Your task to perform on an android device: Open the phone app and click the voicemail tab. Image 0: 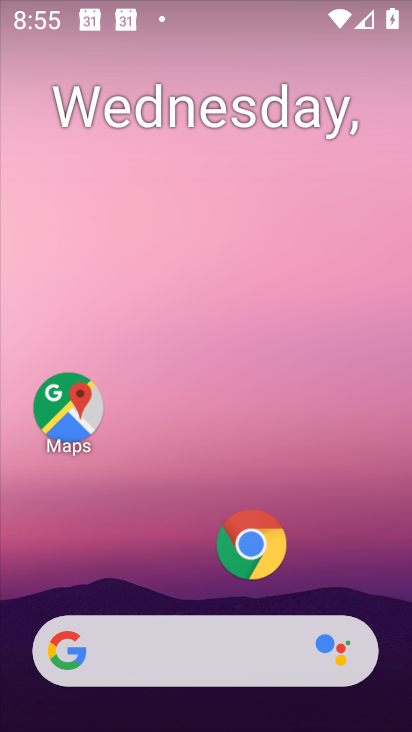
Step 0: drag from (241, 605) to (98, 46)
Your task to perform on an android device: Open the phone app and click the voicemail tab. Image 1: 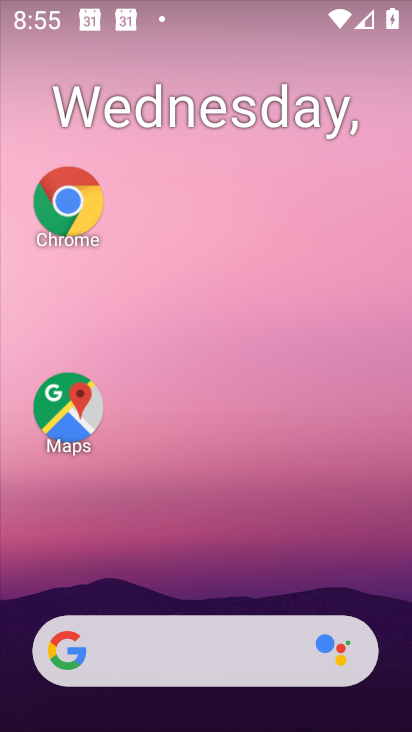
Step 1: drag from (211, 595) to (105, 17)
Your task to perform on an android device: Open the phone app and click the voicemail tab. Image 2: 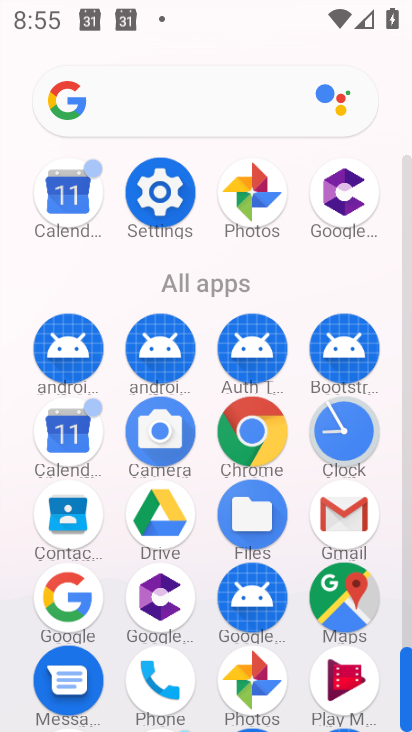
Step 2: click (143, 658)
Your task to perform on an android device: Open the phone app and click the voicemail tab. Image 3: 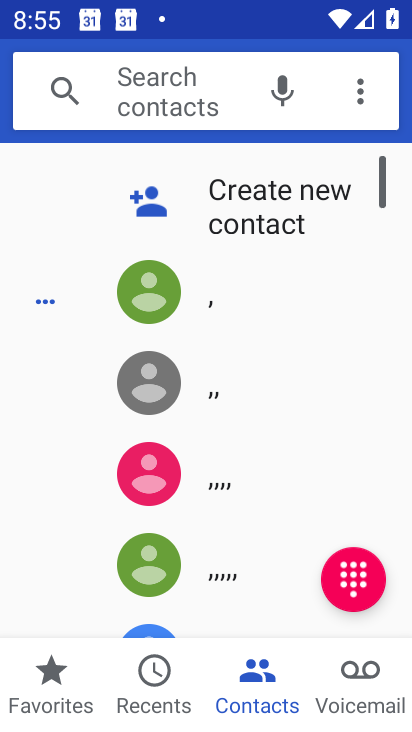
Step 3: click (330, 684)
Your task to perform on an android device: Open the phone app and click the voicemail tab. Image 4: 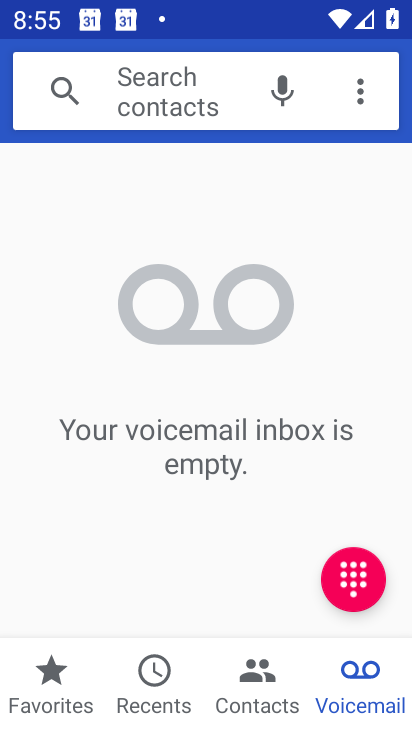
Step 4: task complete